Your task to perform on an android device: change notifications settings Image 0: 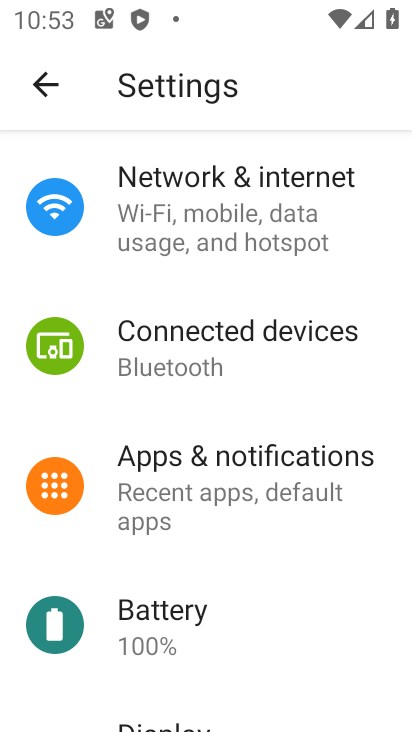
Step 0: click (208, 482)
Your task to perform on an android device: change notifications settings Image 1: 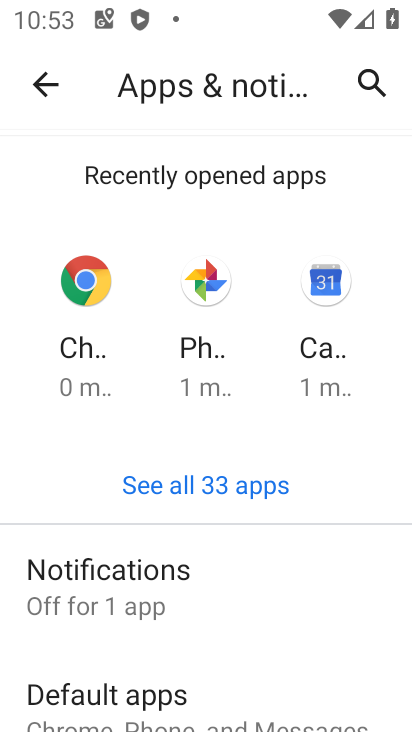
Step 1: click (196, 582)
Your task to perform on an android device: change notifications settings Image 2: 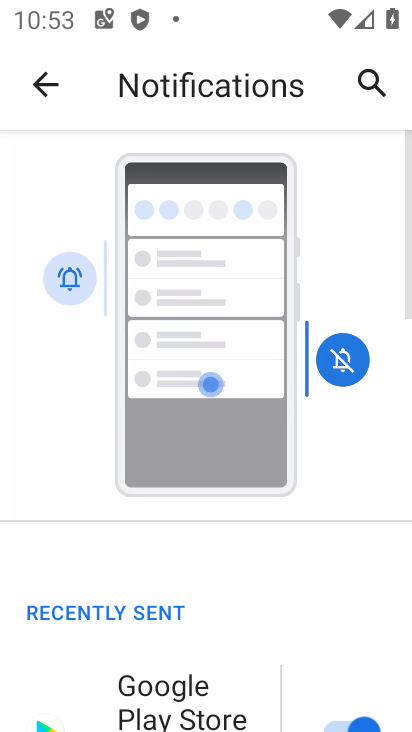
Step 2: drag from (255, 624) to (228, 159)
Your task to perform on an android device: change notifications settings Image 3: 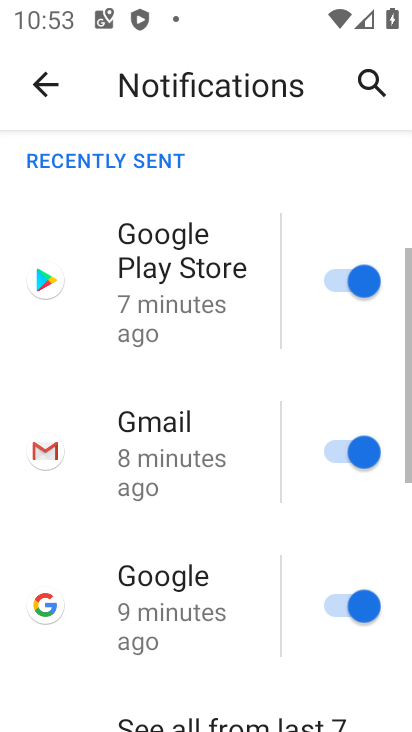
Step 3: drag from (231, 598) to (238, 227)
Your task to perform on an android device: change notifications settings Image 4: 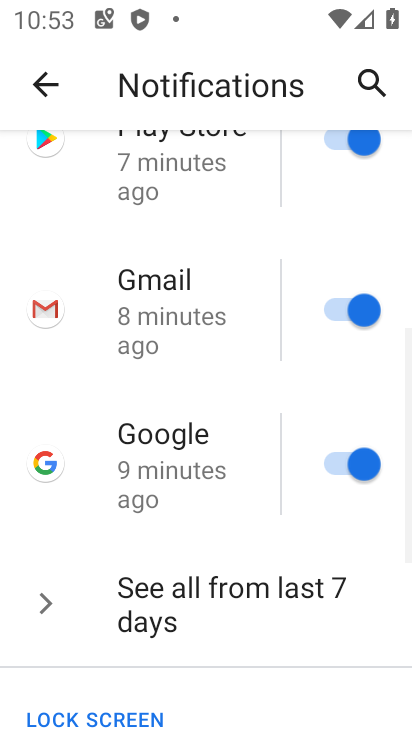
Step 4: drag from (242, 617) to (246, 329)
Your task to perform on an android device: change notifications settings Image 5: 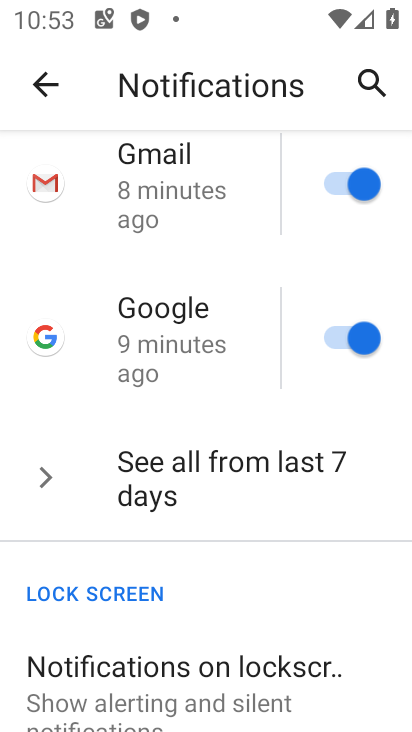
Step 5: drag from (249, 604) to (239, 366)
Your task to perform on an android device: change notifications settings Image 6: 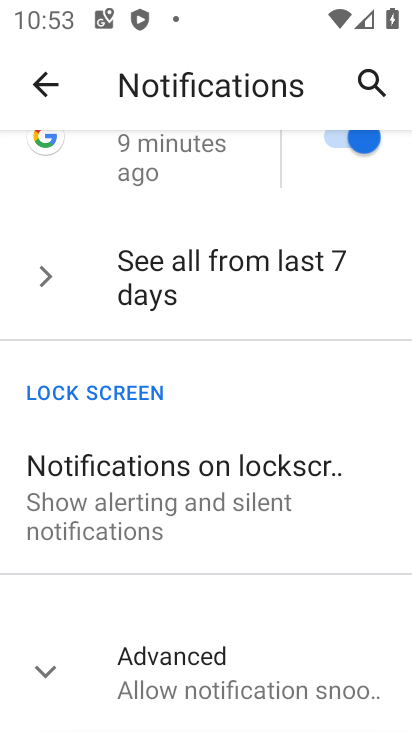
Step 6: click (216, 566)
Your task to perform on an android device: change notifications settings Image 7: 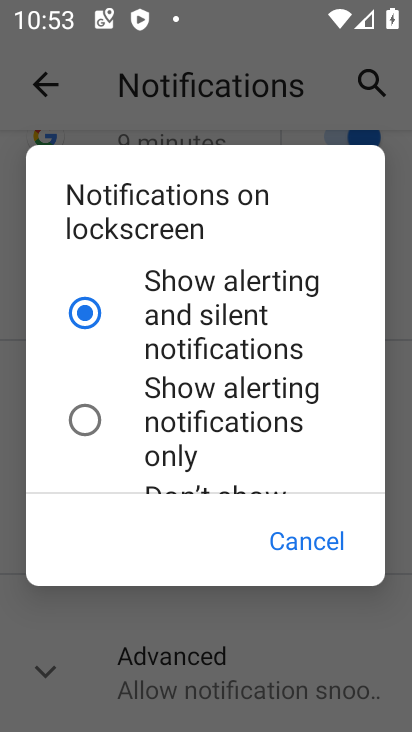
Step 7: click (207, 510)
Your task to perform on an android device: change notifications settings Image 8: 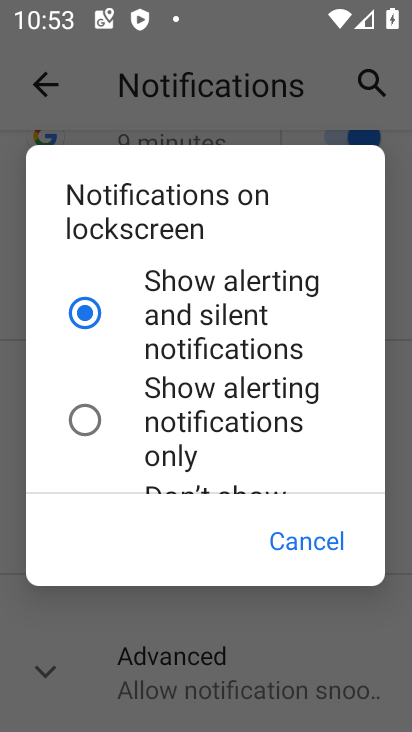
Step 8: drag from (189, 309) to (199, 249)
Your task to perform on an android device: change notifications settings Image 9: 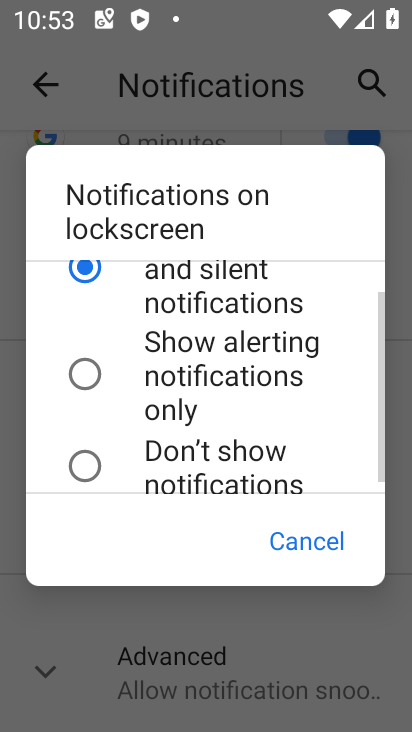
Step 9: click (88, 473)
Your task to perform on an android device: change notifications settings Image 10: 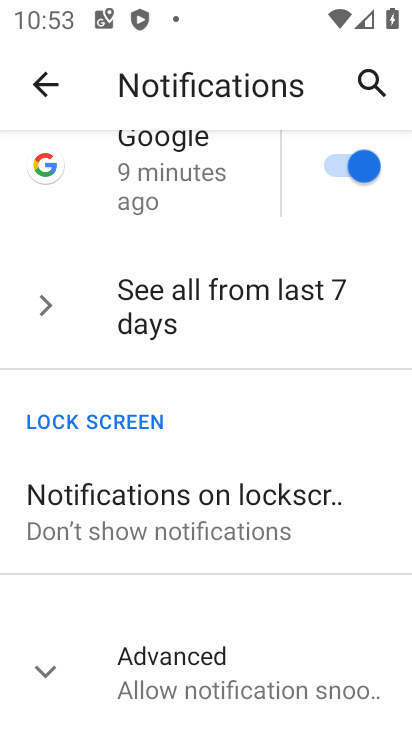
Step 10: task complete